Your task to perform on an android device: turn smart compose on in the gmail app Image 0: 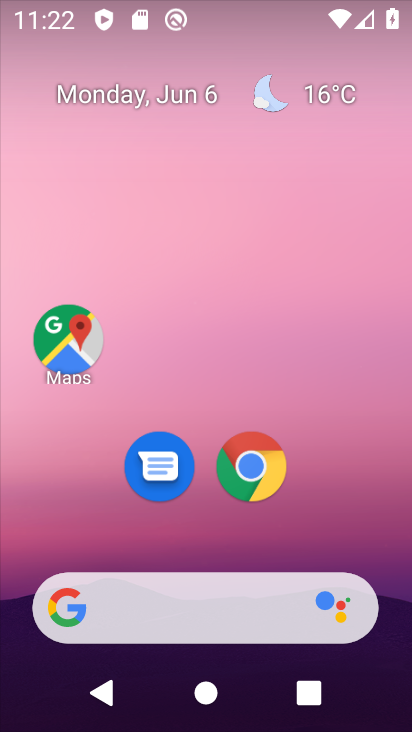
Step 0: drag from (196, 508) to (251, 23)
Your task to perform on an android device: turn smart compose on in the gmail app Image 1: 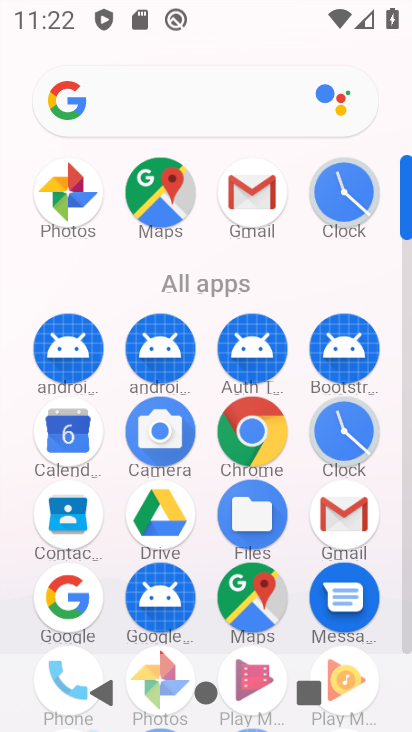
Step 1: click (336, 525)
Your task to perform on an android device: turn smart compose on in the gmail app Image 2: 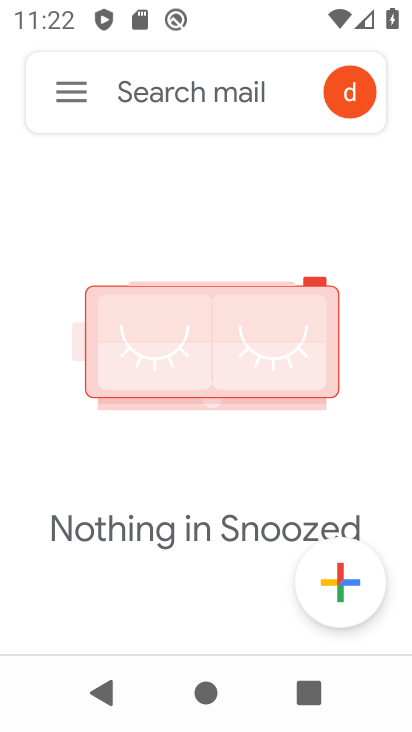
Step 2: click (83, 84)
Your task to perform on an android device: turn smart compose on in the gmail app Image 3: 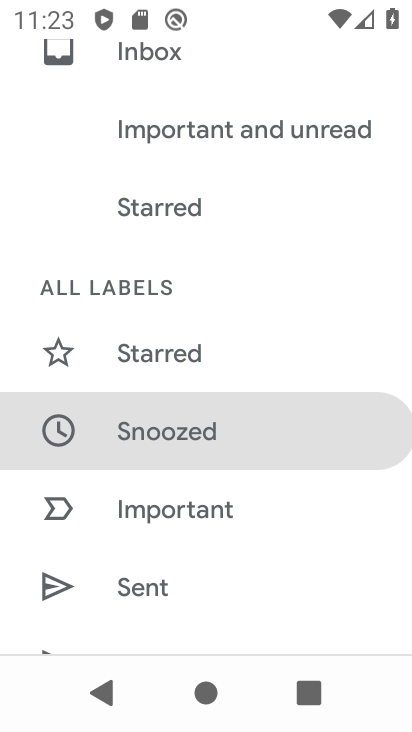
Step 3: drag from (129, 540) to (150, 65)
Your task to perform on an android device: turn smart compose on in the gmail app Image 4: 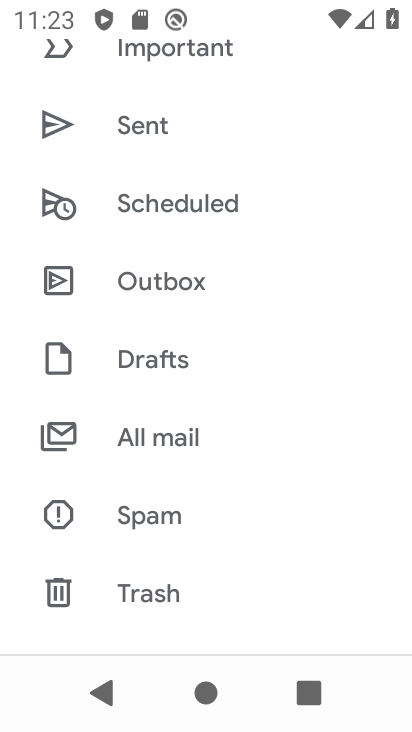
Step 4: drag from (149, 555) to (126, 30)
Your task to perform on an android device: turn smart compose on in the gmail app Image 5: 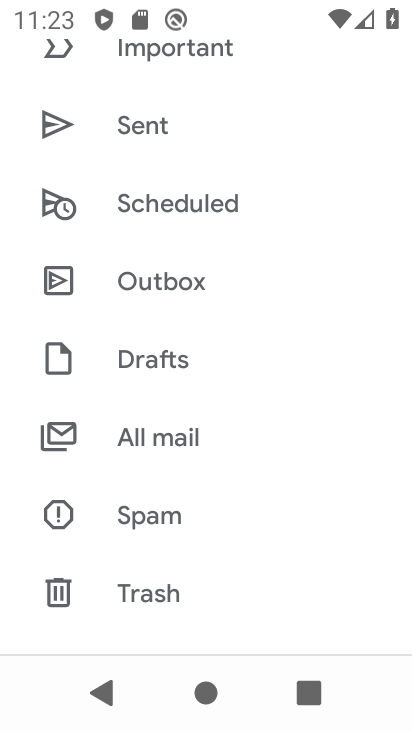
Step 5: drag from (303, 558) to (317, 150)
Your task to perform on an android device: turn smart compose on in the gmail app Image 6: 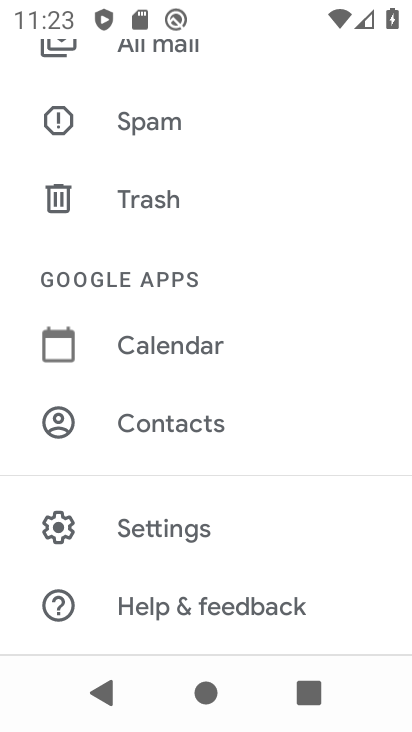
Step 6: click (176, 515)
Your task to perform on an android device: turn smart compose on in the gmail app Image 7: 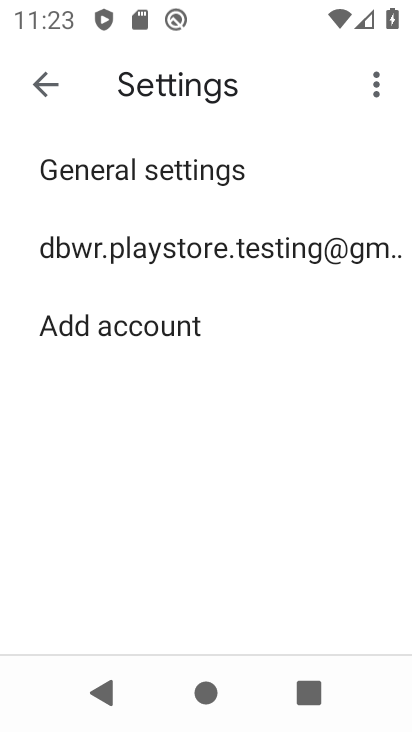
Step 7: click (241, 253)
Your task to perform on an android device: turn smart compose on in the gmail app Image 8: 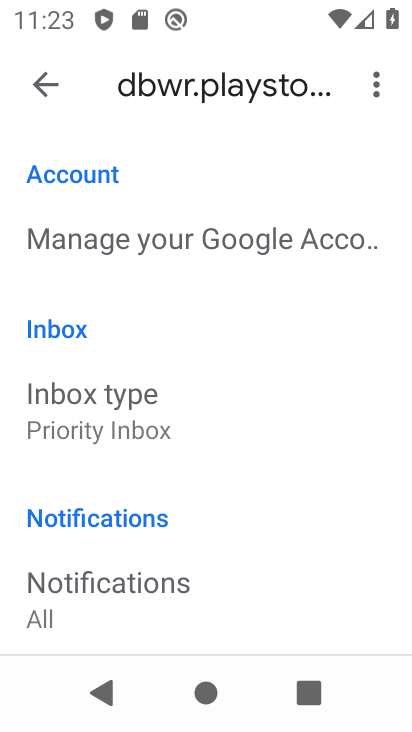
Step 8: task complete